Your task to perform on an android device: delete location history Image 0: 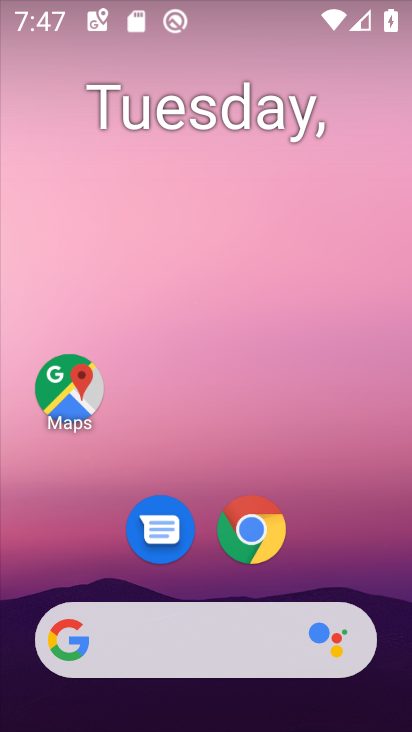
Step 0: click (72, 392)
Your task to perform on an android device: delete location history Image 1: 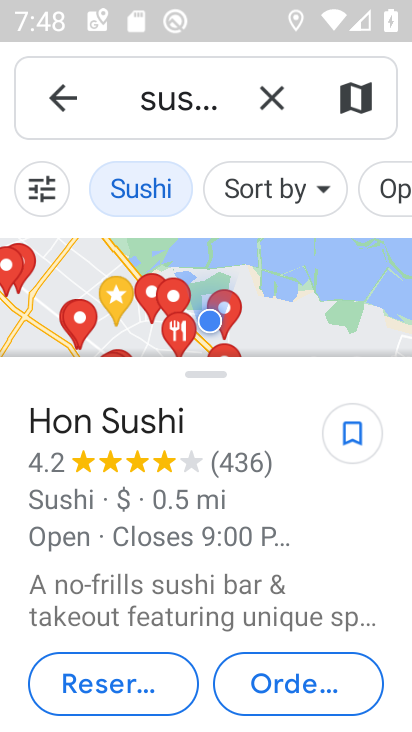
Step 1: click (63, 87)
Your task to perform on an android device: delete location history Image 2: 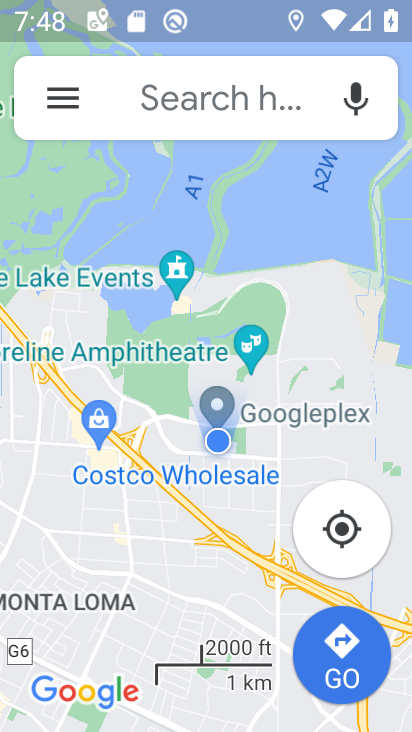
Step 2: click (55, 94)
Your task to perform on an android device: delete location history Image 3: 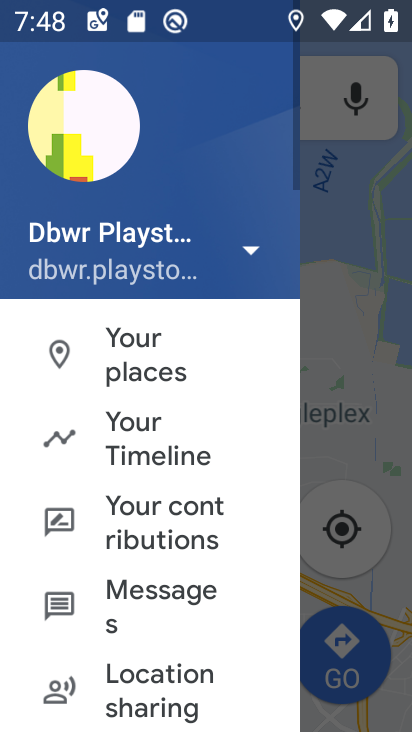
Step 3: click (200, 444)
Your task to perform on an android device: delete location history Image 4: 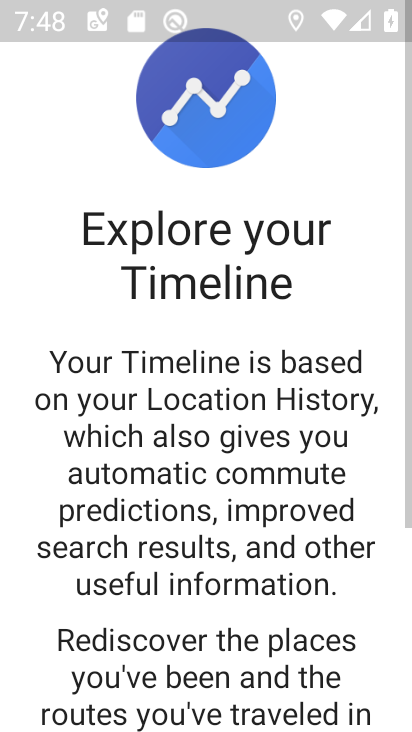
Step 4: drag from (269, 580) to (267, 5)
Your task to perform on an android device: delete location history Image 5: 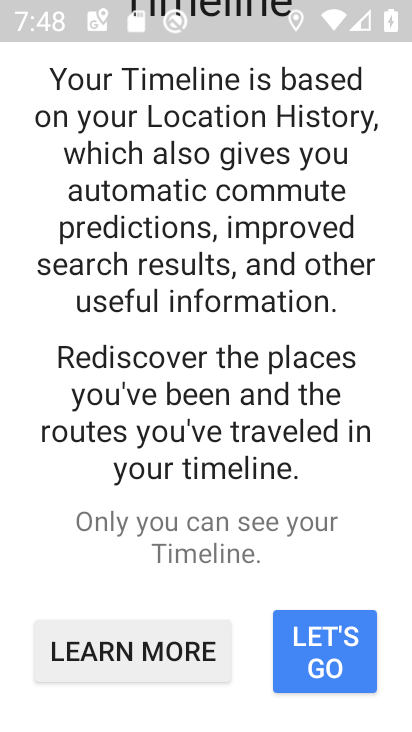
Step 5: click (359, 653)
Your task to perform on an android device: delete location history Image 6: 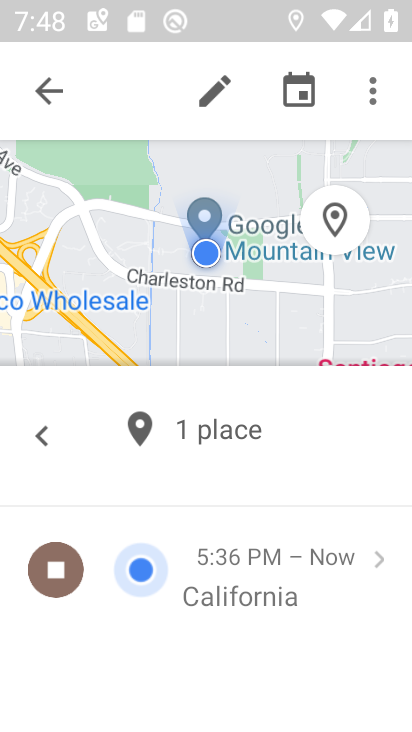
Step 6: click (375, 96)
Your task to perform on an android device: delete location history Image 7: 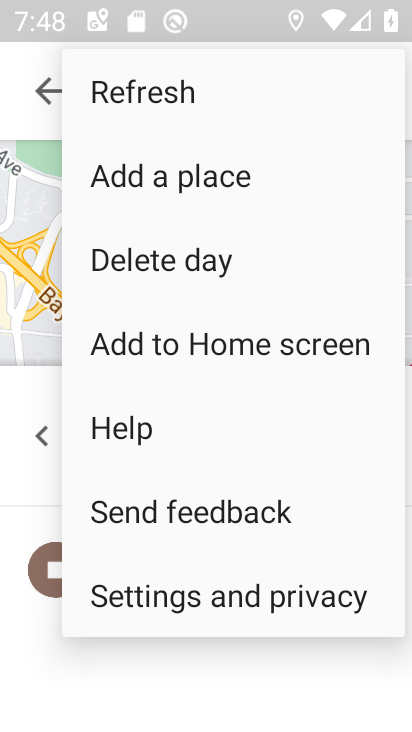
Step 7: click (127, 598)
Your task to perform on an android device: delete location history Image 8: 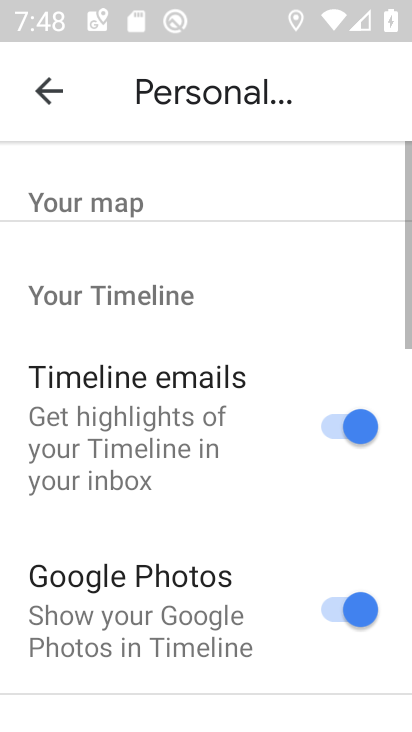
Step 8: drag from (178, 618) to (254, 32)
Your task to perform on an android device: delete location history Image 9: 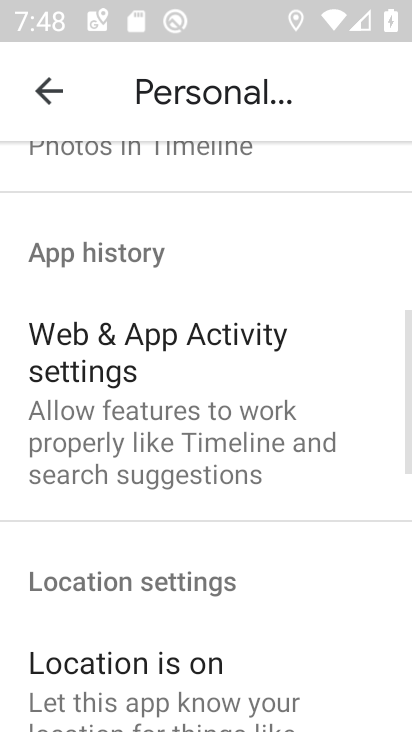
Step 9: drag from (188, 599) to (235, 50)
Your task to perform on an android device: delete location history Image 10: 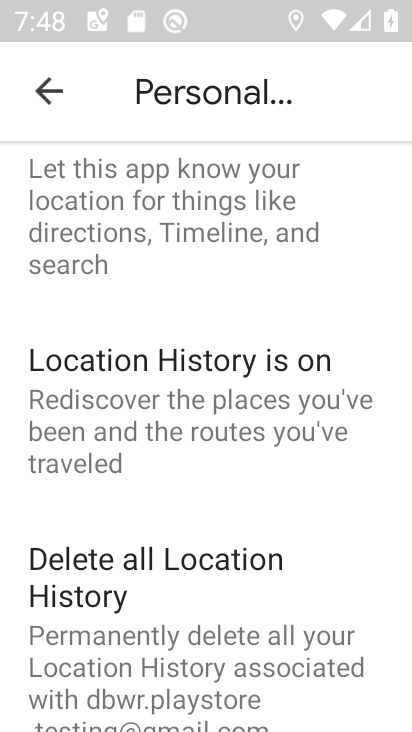
Step 10: click (111, 613)
Your task to perform on an android device: delete location history Image 11: 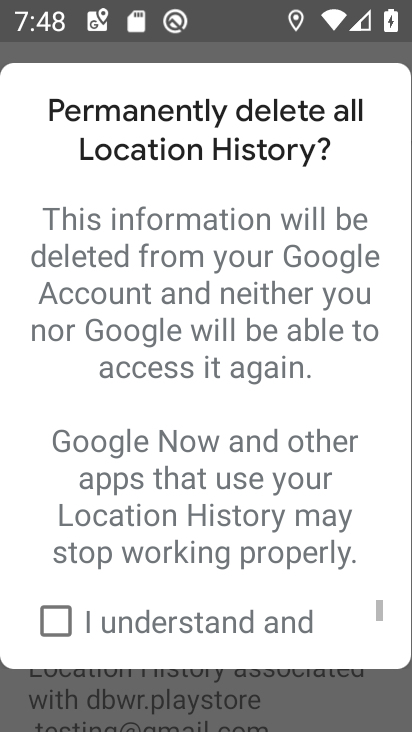
Step 11: click (38, 620)
Your task to perform on an android device: delete location history Image 12: 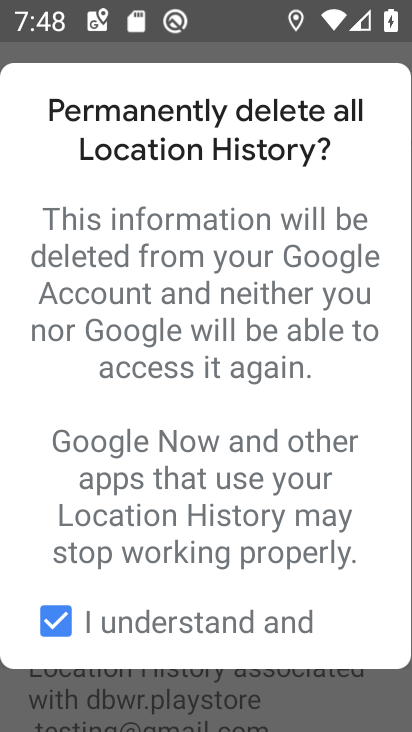
Step 12: task complete